Your task to perform on an android device: toggle data saver in the chrome app Image 0: 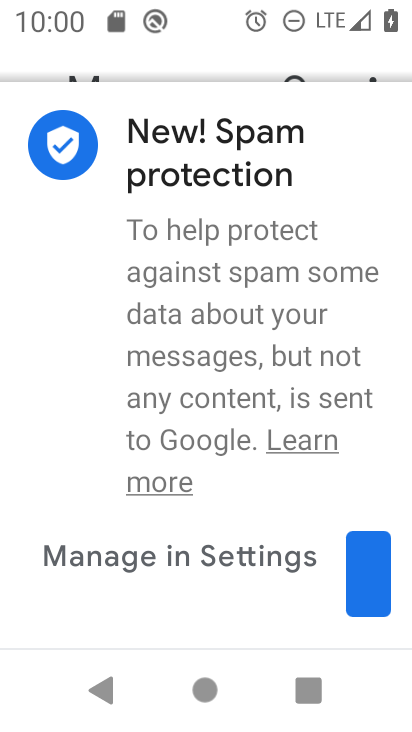
Step 0: press home button
Your task to perform on an android device: toggle data saver in the chrome app Image 1: 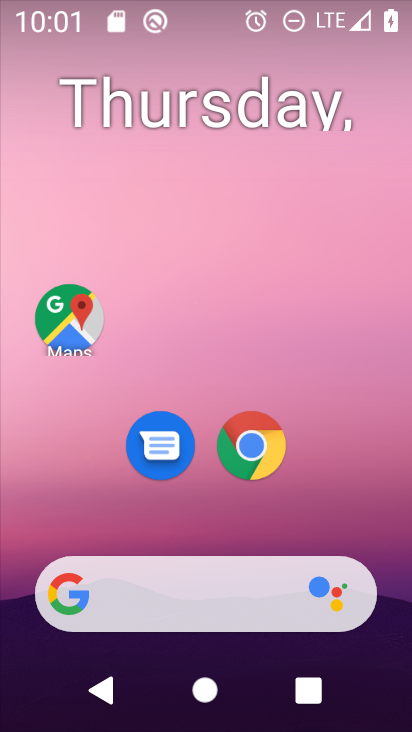
Step 1: drag from (391, 610) to (306, 75)
Your task to perform on an android device: toggle data saver in the chrome app Image 2: 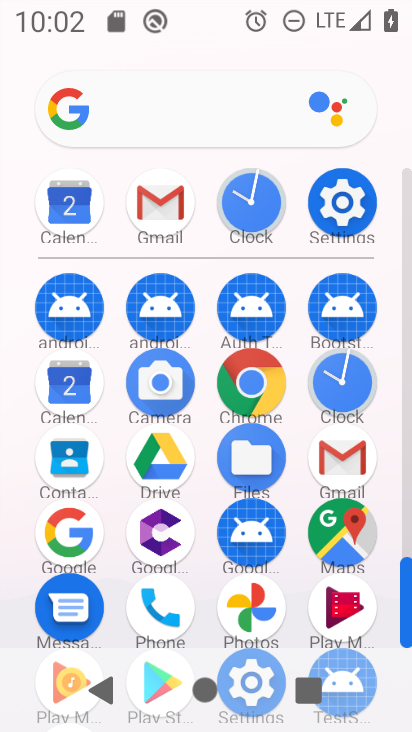
Step 2: click (256, 380)
Your task to perform on an android device: toggle data saver in the chrome app Image 3: 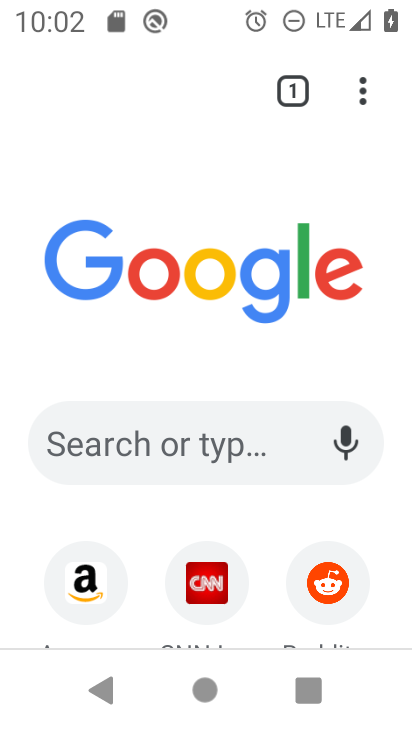
Step 3: click (366, 80)
Your task to perform on an android device: toggle data saver in the chrome app Image 4: 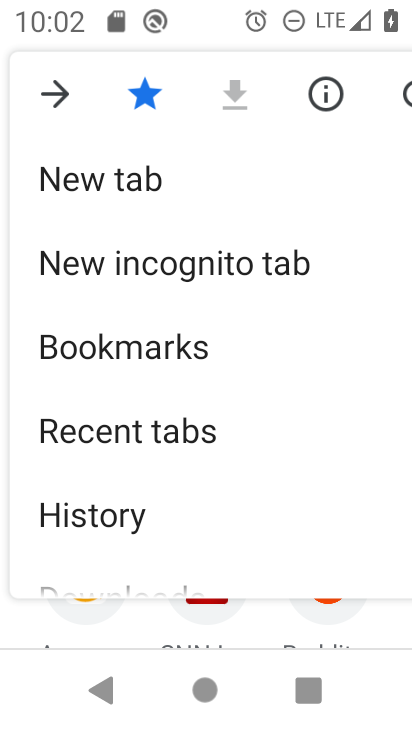
Step 4: drag from (239, 304) to (227, 119)
Your task to perform on an android device: toggle data saver in the chrome app Image 5: 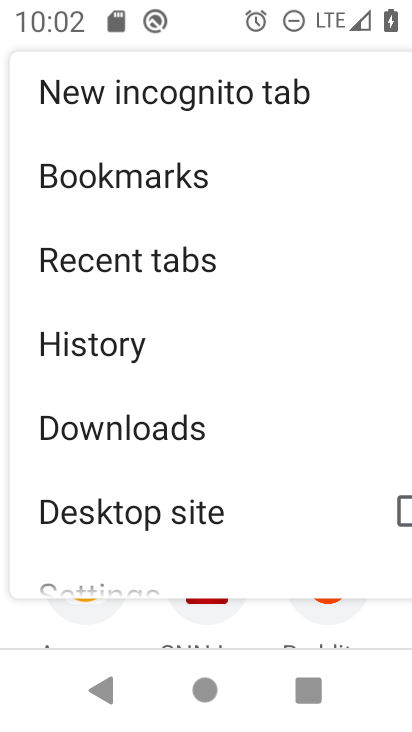
Step 5: drag from (120, 514) to (202, 93)
Your task to perform on an android device: toggle data saver in the chrome app Image 6: 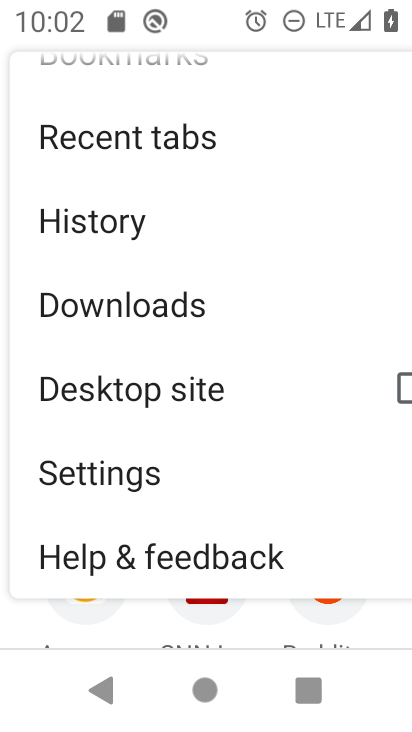
Step 6: click (174, 469)
Your task to perform on an android device: toggle data saver in the chrome app Image 7: 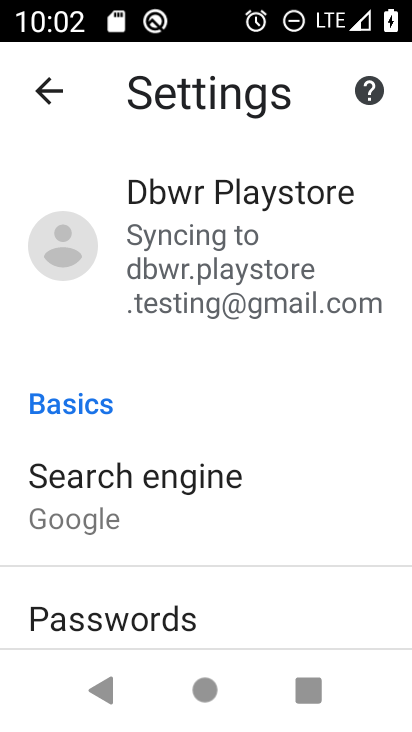
Step 7: drag from (223, 573) to (226, 107)
Your task to perform on an android device: toggle data saver in the chrome app Image 8: 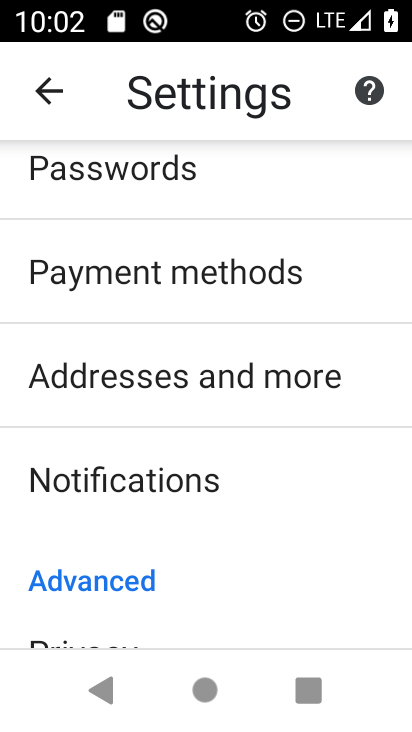
Step 8: drag from (254, 588) to (282, 98)
Your task to perform on an android device: toggle data saver in the chrome app Image 9: 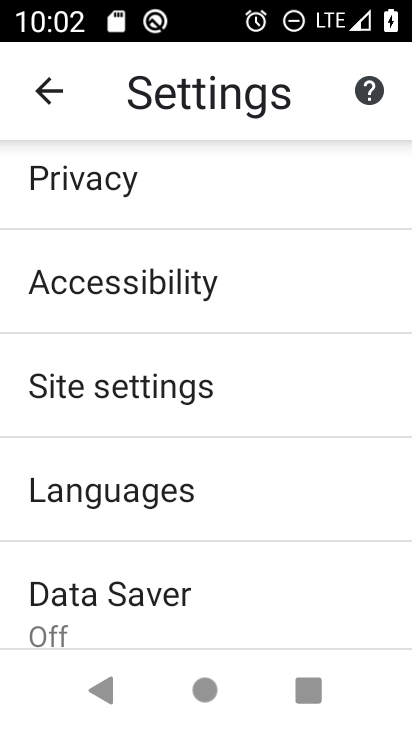
Step 9: click (215, 595)
Your task to perform on an android device: toggle data saver in the chrome app Image 10: 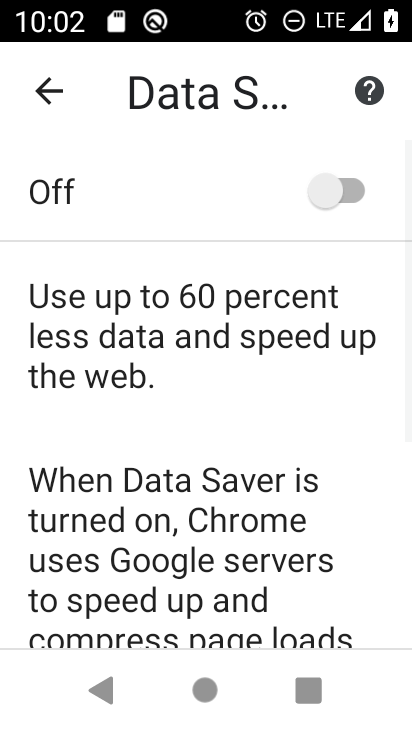
Step 10: click (293, 208)
Your task to perform on an android device: toggle data saver in the chrome app Image 11: 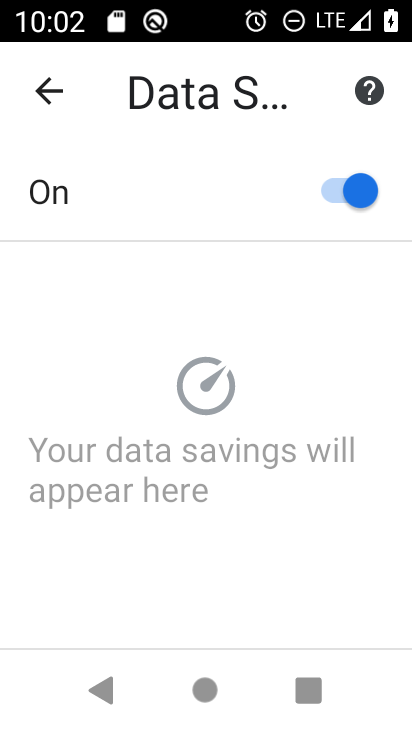
Step 11: task complete